Your task to perform on an android device: turn off location Image 0: 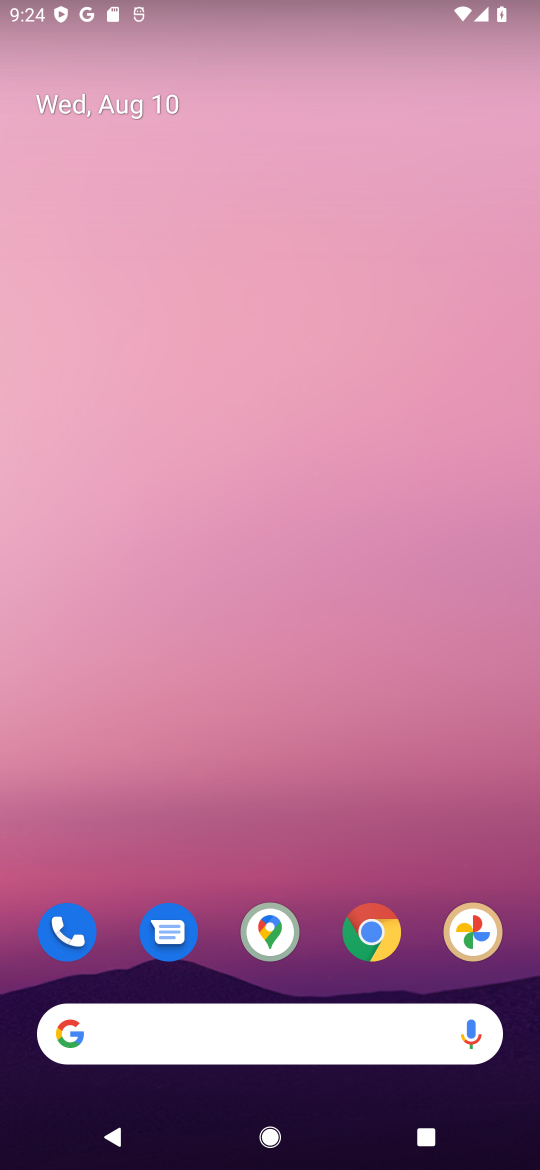
Step 0: click (285, 35)
Your task to perform on an android device: turn off location Image 1: 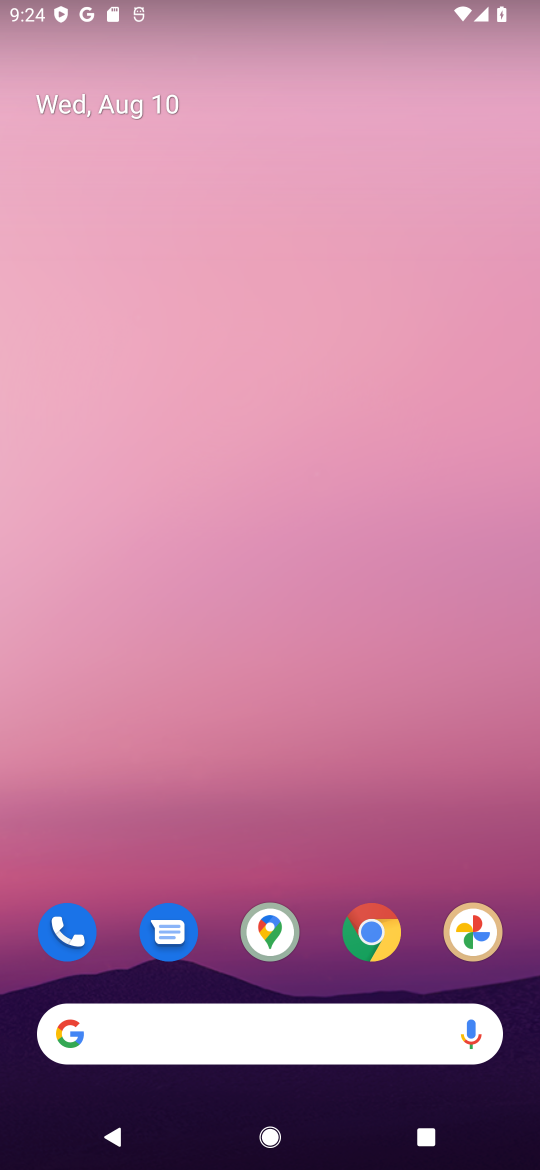
Step 1: drag from (320, 974) to (320, 296)
Your task to perform on an android device: turn off location Image 2: 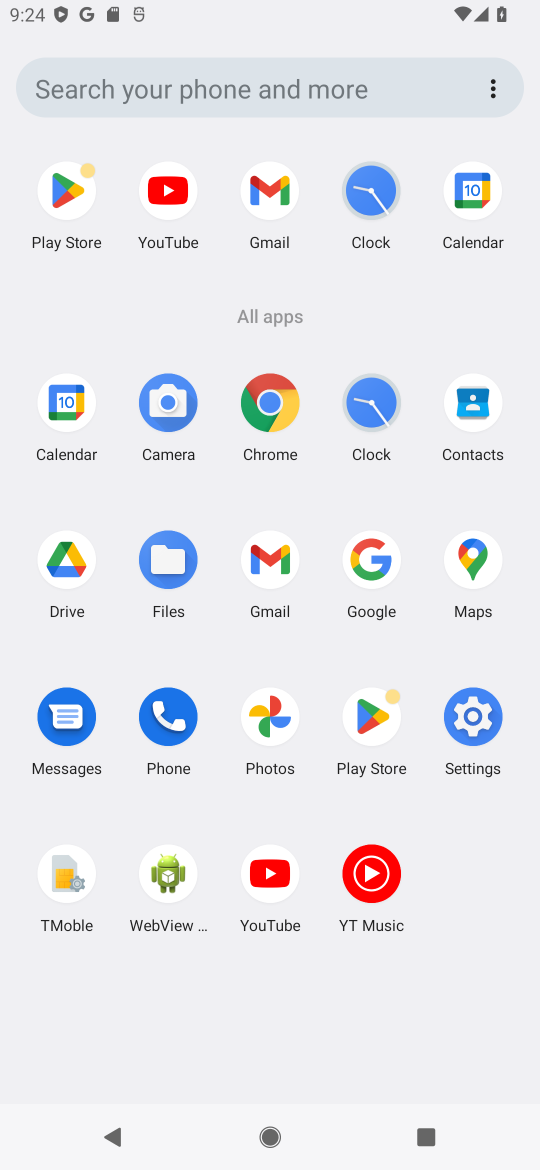
Step 2: click (475, 719)
Your task to perform on an android device: turn off location Image 3: 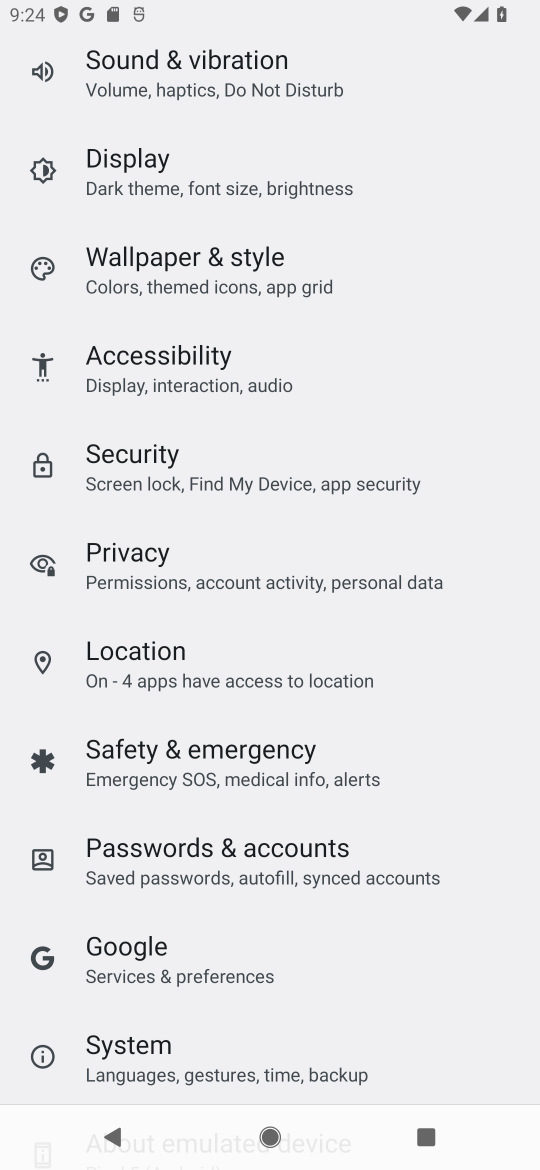
Step 3: click (156, 645)
Your task to perform on an android device: turn off location Image 4: 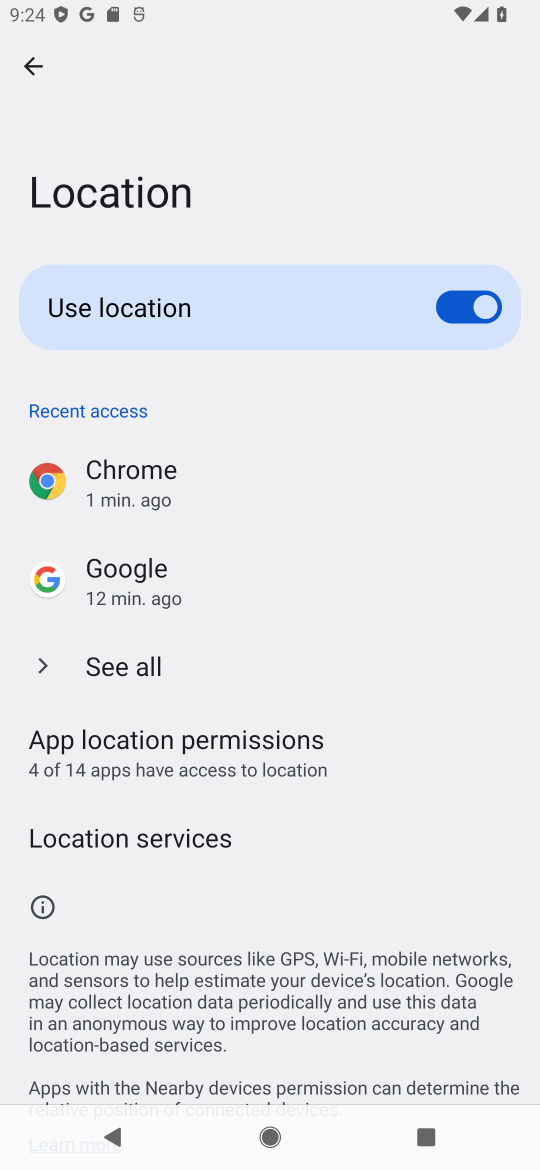
Step 4: click (471, 302)
Your task to perform on an android device: turn off location Image 5: 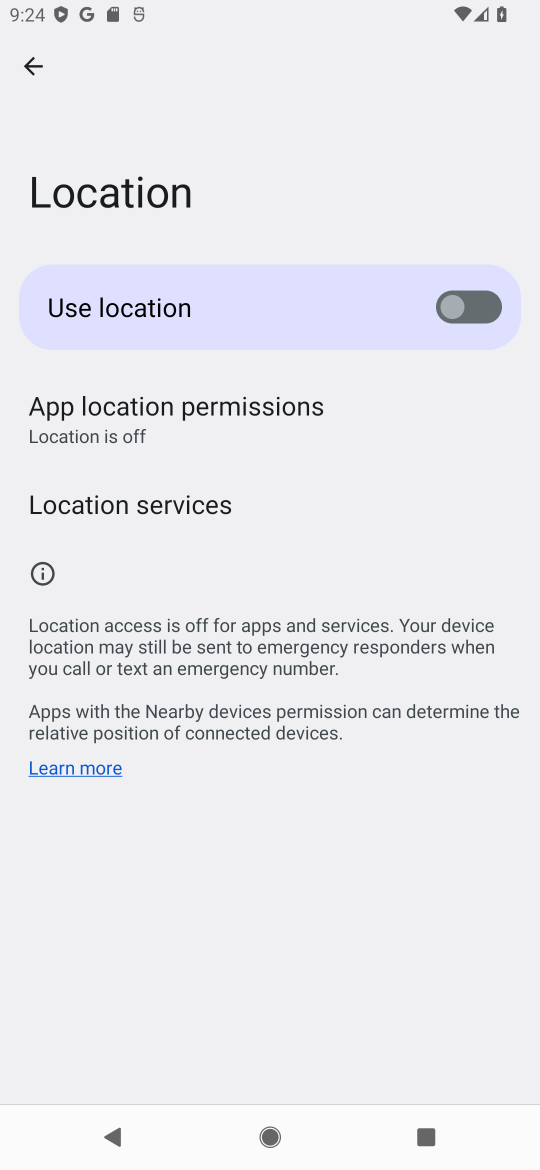
Step 5: task complete